Your task to perform on an android device: open a bookmark in the chrome app Image 0: 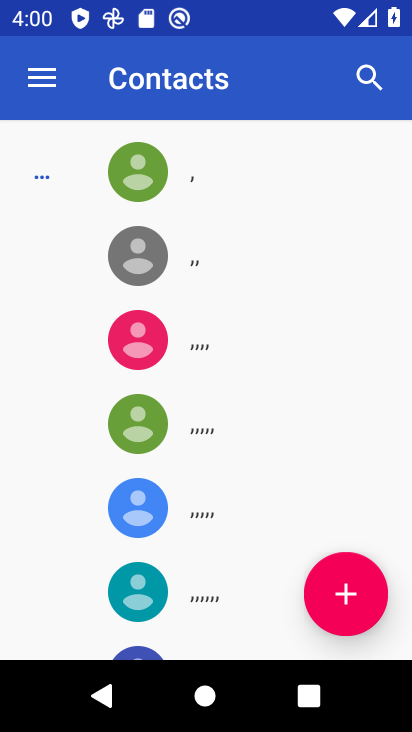
Step 0: press back button
Your task to perform on an android device: open a bookmark in the chrome app Image 1: 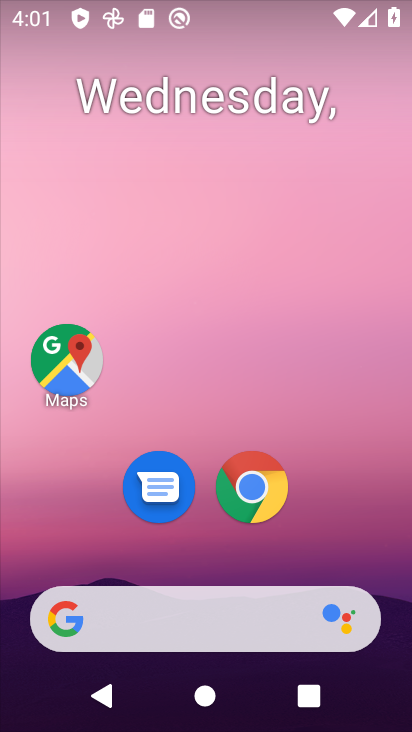
Step 1: drag from (357, 542) to (372, 299)
Your task to perform on an android device: open a bookmark in the chrome app Image 2: 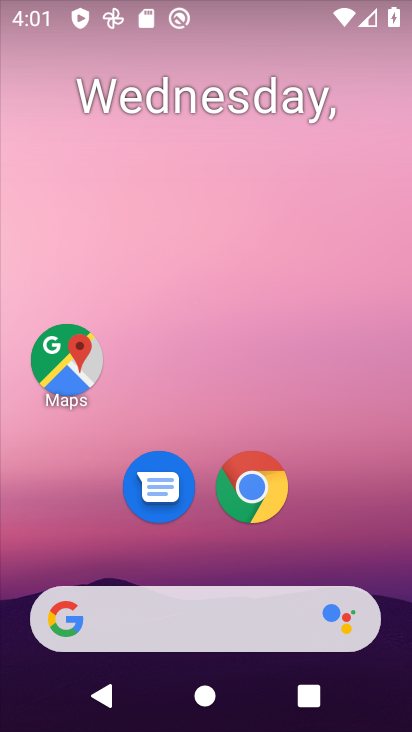
Step 2: drag from (360, 554) to (389, 241)
Your task to perform on an android device: open a bookmark in the chrome app Image 3: 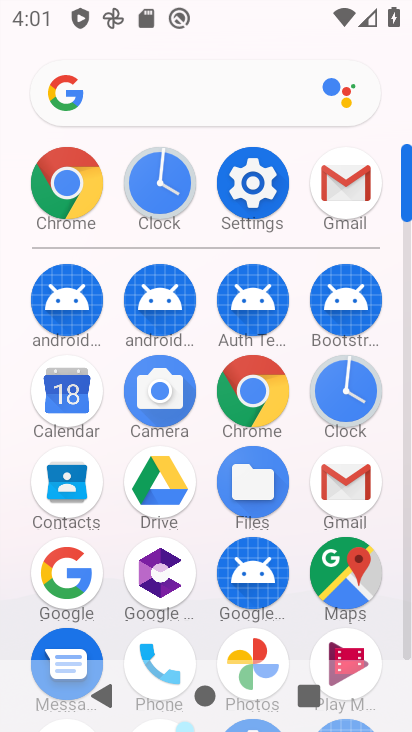
Step 3: click (270, 434)
Your task to perform on an android device: open a bookmark in the chrome app Image 4: 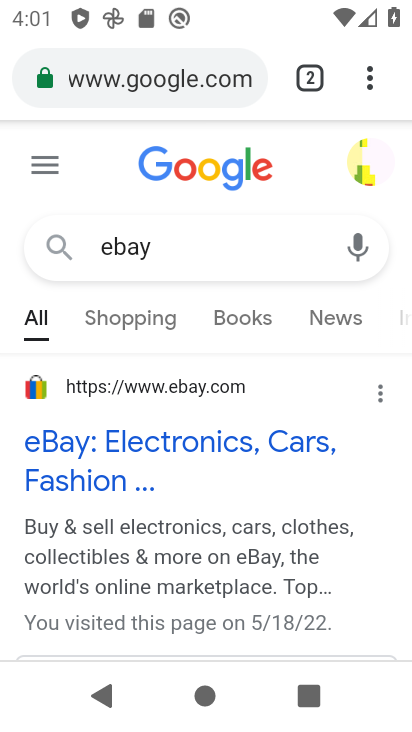
Step 4: drag from (307, 586) to (327, 483)
Your task to perform on an android device: open a bookmark in the chrome app Image 5: 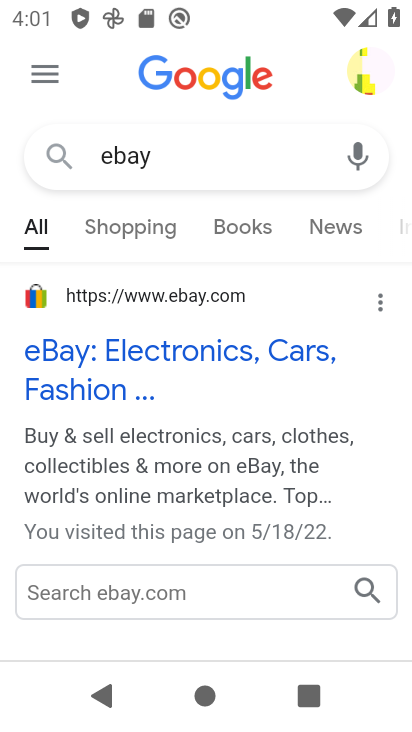
Step 5: click (356, 82)
Your task to perform on an android device: open a bookmark in the chrome app Image 6: 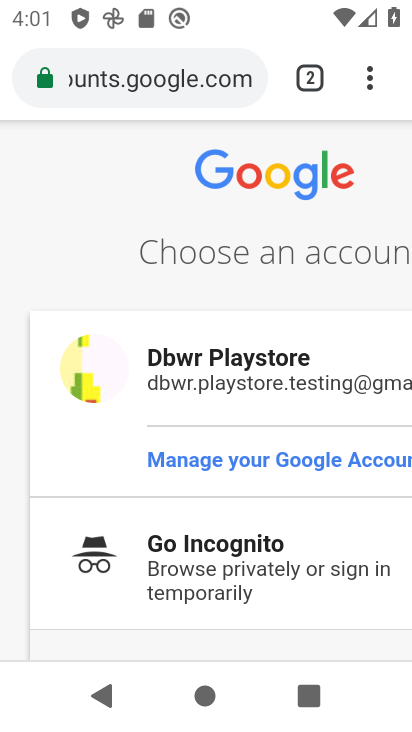
Step 6: drag from (350, 424) to (378, 140)
Your task to perform on an android device: open a bookmark in the chrome app Image 7: 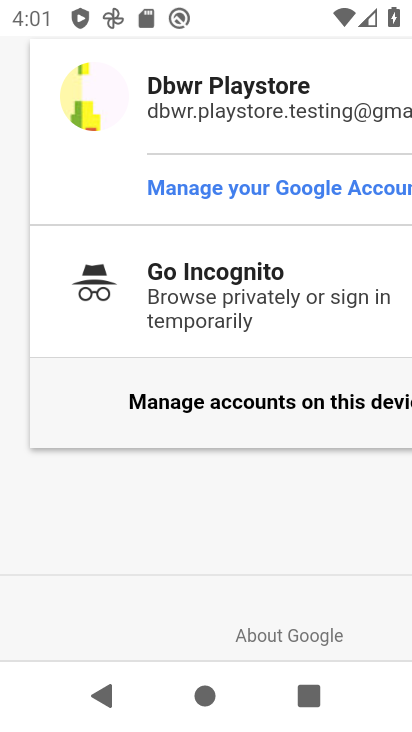
Step 7: drag from (359, 178) to (343, 462)
Your task to perform on an android device: open a bookmark in the chrome app Image 8: 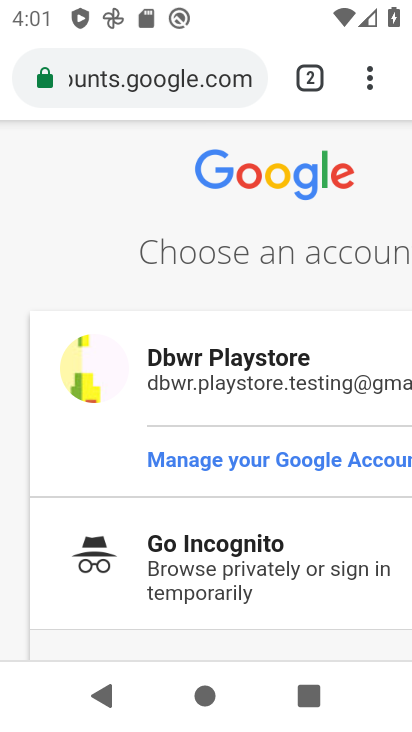
Step 8: click (376, 69)
Your task to perform on an android device: open a bookmark in the chrome app Image 9: 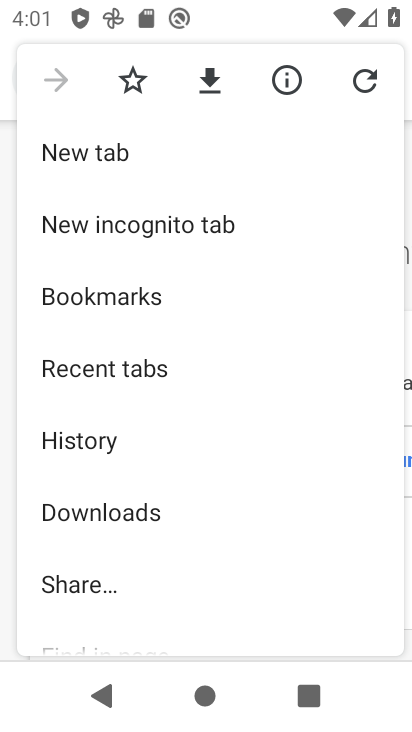
Step 9: click (141, 304)
Your task to perform on an android device: open a bookmark in the chrome app Image 10: 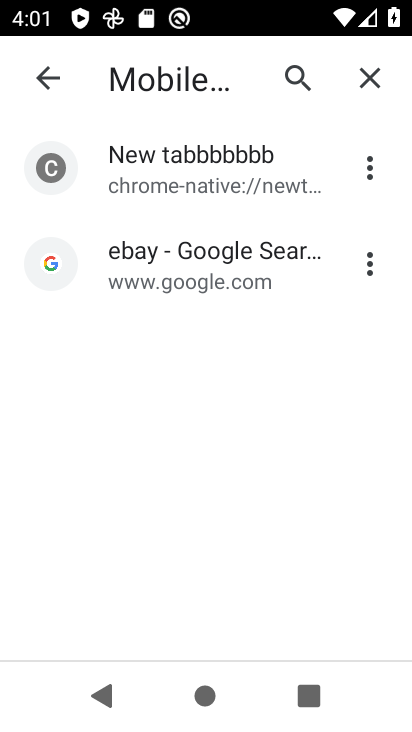
Step 10: click (162, 285)
Your task to perform on an android device: open a bookmark in the chrome app Image 11: 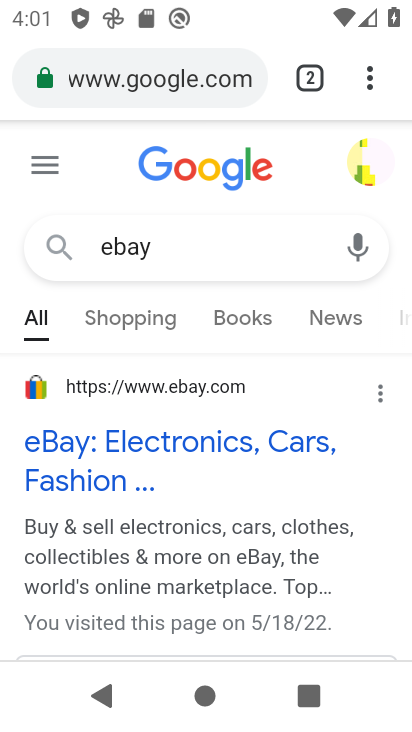
Step 11: task complete